Your task to perform on an android device: Do I have any events this weekend? Image 0: 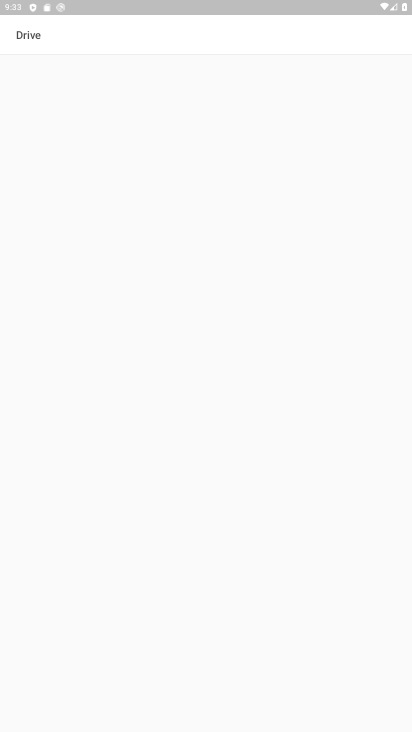
Step 0: press home button
Your task to perform on an android device: Do I have any events this weekend? Image 1: 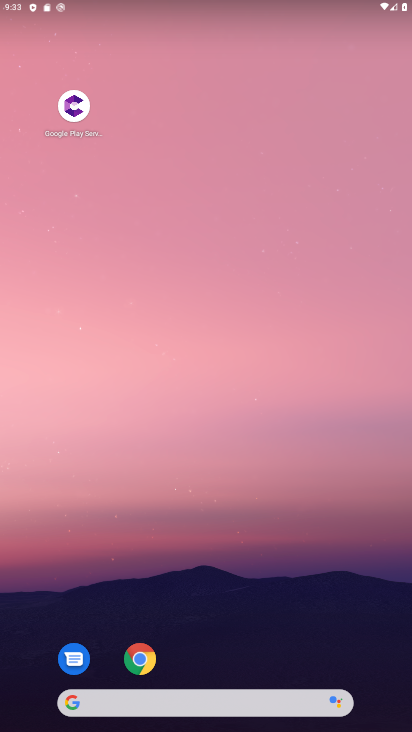
Step 1: drag from (272, 663) to (307, 3)
Your task to perform on an android device: Do I have any events this weekend? Image 2: 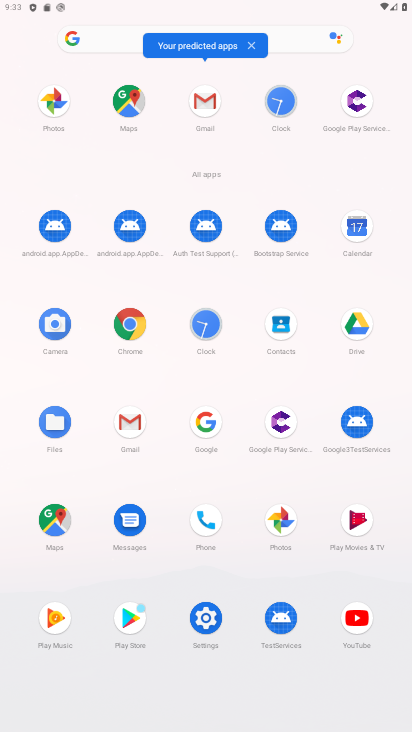
Step 2: click (354, 226)
Your task to perform on an android device: Do I have any events this weekend? Image 3: 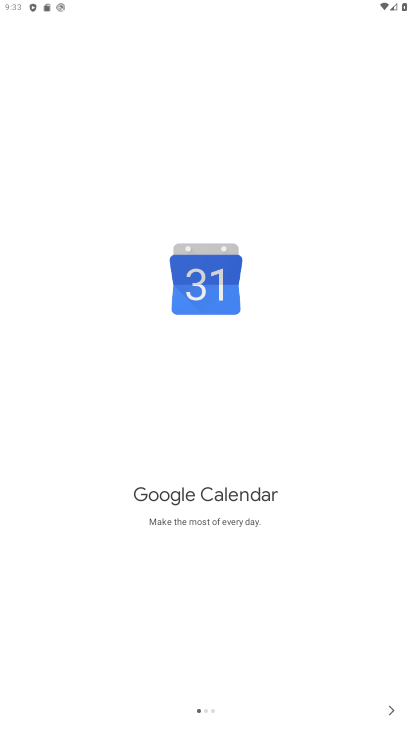
Step 3: click (385, 702)
Your task to perform on an android device: Do I have any events this weekend? Image 4: 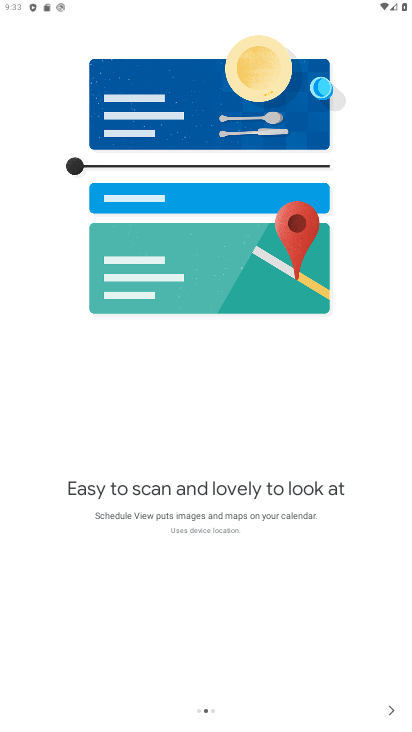
Step 4: click (385, 702)
Your task to perform on an android device: Do I have any events this weekend? Image 5: 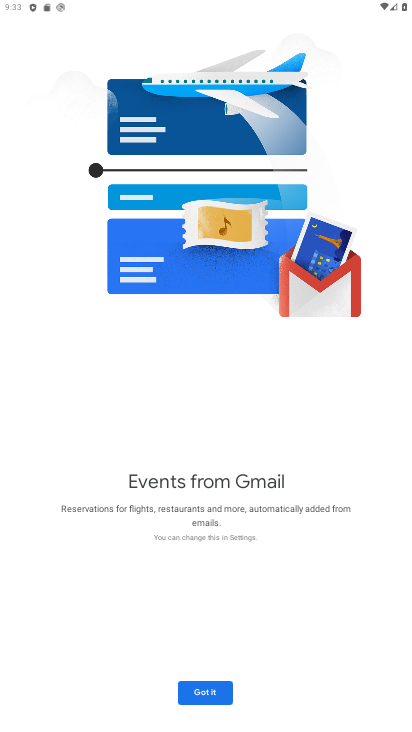
Step 5: click (204, 697)
Your task to perform on an android device: Do I have any events this weekend? Image 6: 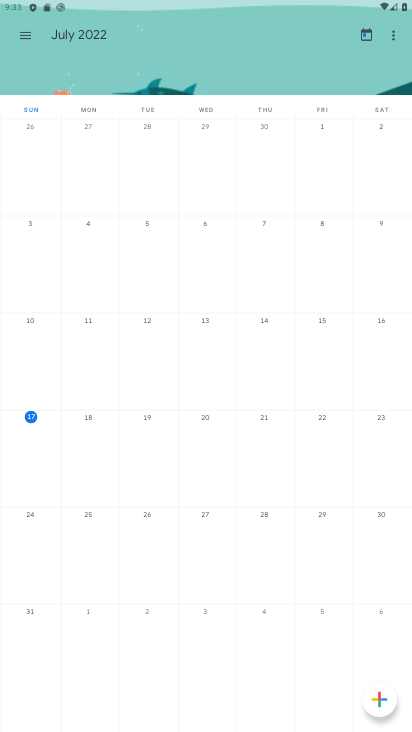
Step 6: click (374, 422)
Your task to perform on an android device: Do I have any events this weekend? Image 7: 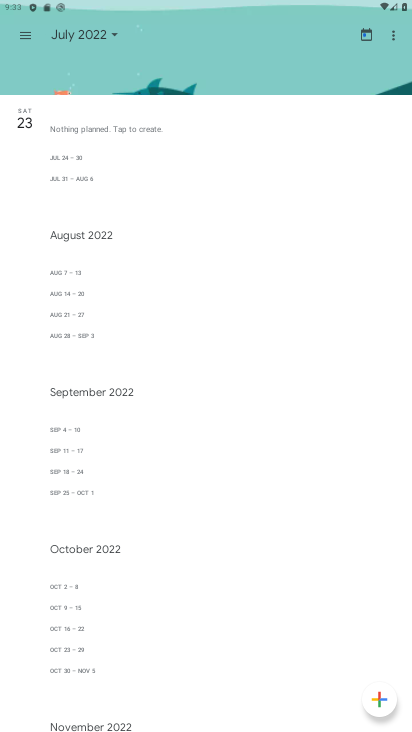
Step 7: task complete